Your task to perform on an android device: Open settings Image 0: 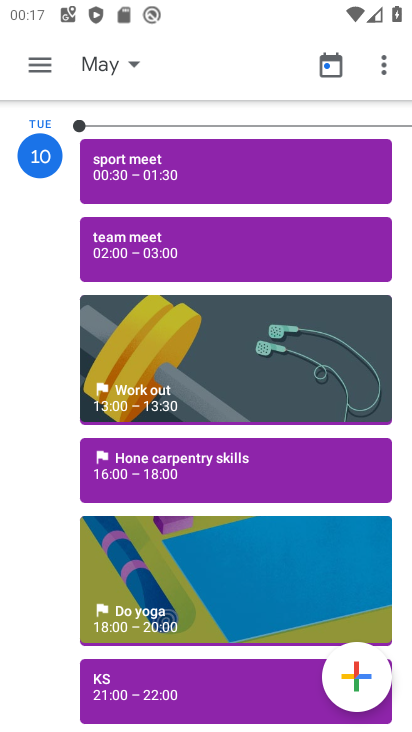
Step 0: press home button
Your task to perform on an android device: Open settings Image 1: 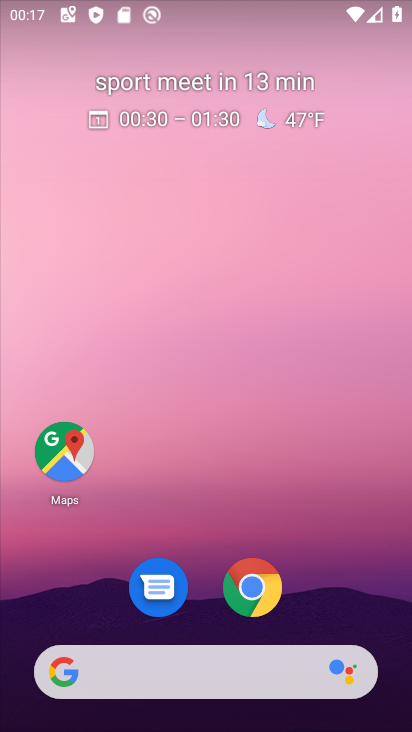
Step 1: drag from (396, 674) to (334, 152)
Your task to perform on an android device: Open settings Image 2: 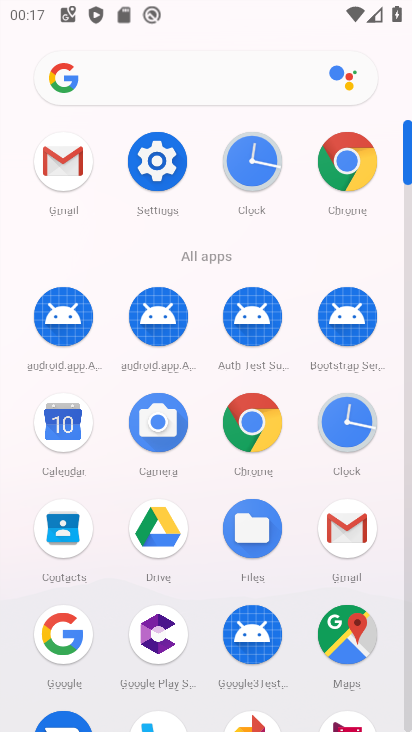
Step 2: click (160, 176)
Your task to perform on an android device: Open settings Image 3: 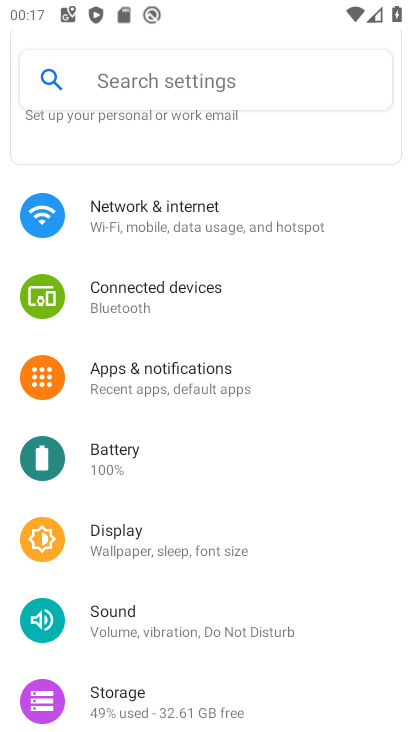
Step 3: task complete